Your task to perform on an android device: Open calendar and show me the first week of next month Image 0: 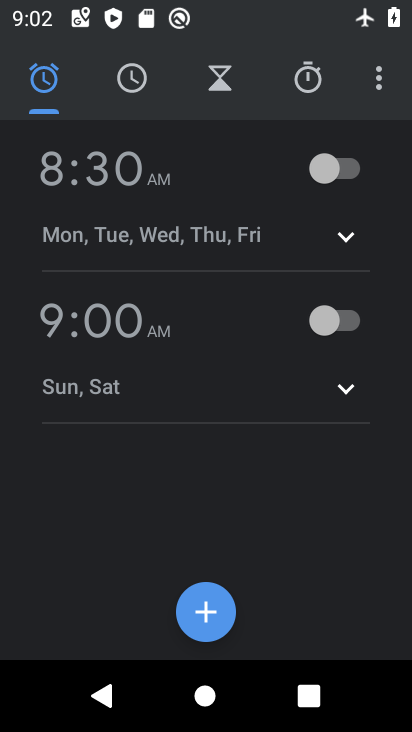
Step 0: press home button
Your task to perform on an android device: Open calendar and show me the first week of next month Image 1: 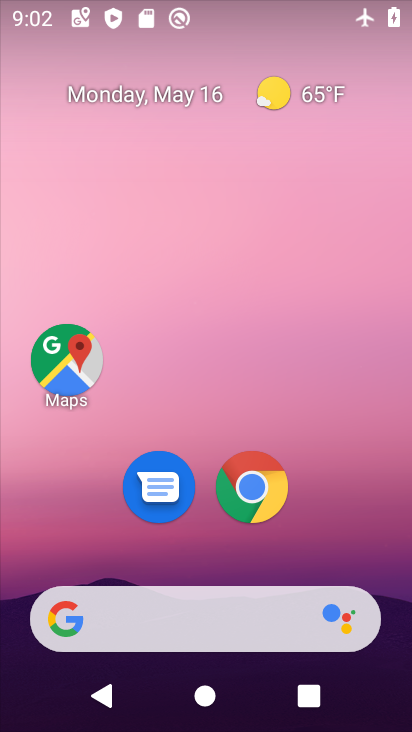
Step 1: drag from (384, 529) to (372, 147)
Your task to perform on an android device: Open calendar and show me the first week of next month Image 2: 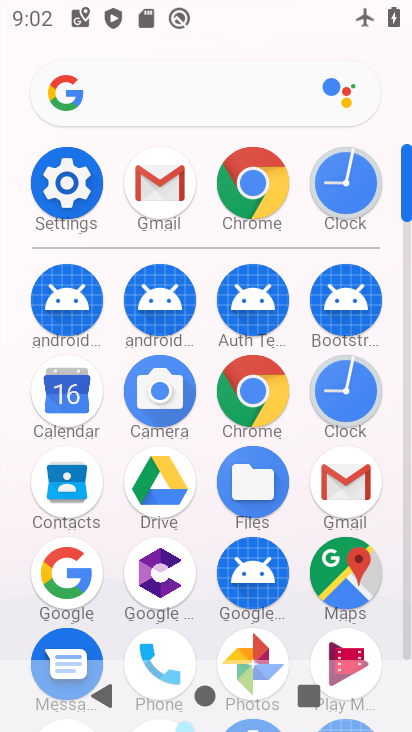
Step 2: click (55, 404)
Your task to perform on an android device: Open calendar and show me the first week of next month Image 3: 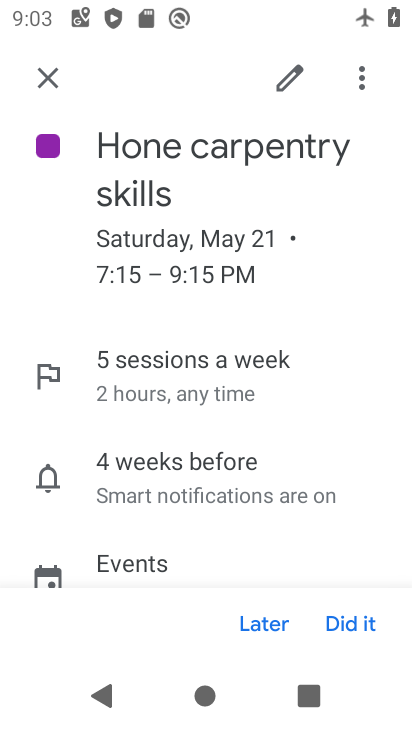
Step 3: click (48, 79)
Your task to perform on an android device: Open calendar and show me the first week of next month Image 4: 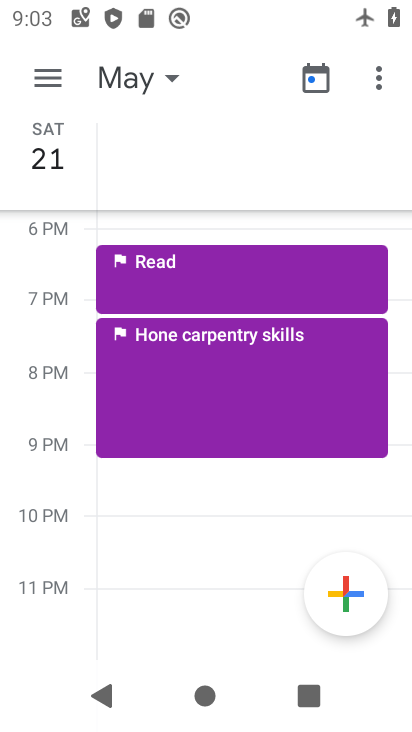
Step 4: click (170, 84)
Your task to perform on an android device: Open calendar and show me the first week of next month Image 5: 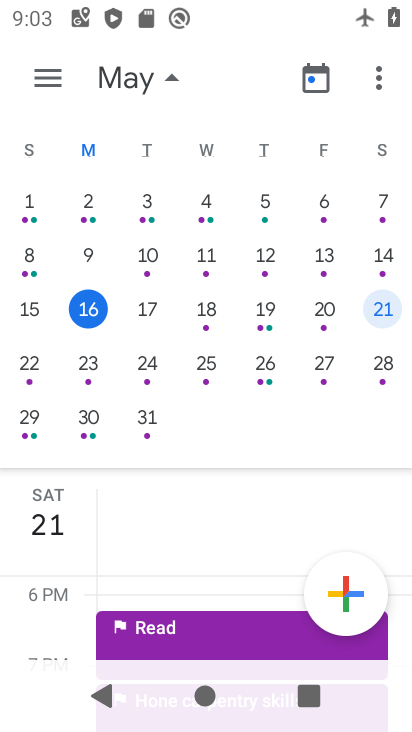
Step 5: drag from (366, 218) to (17, 195)
Your task to perform on an android device: Open calendar and show me the first week of next month Image 6: 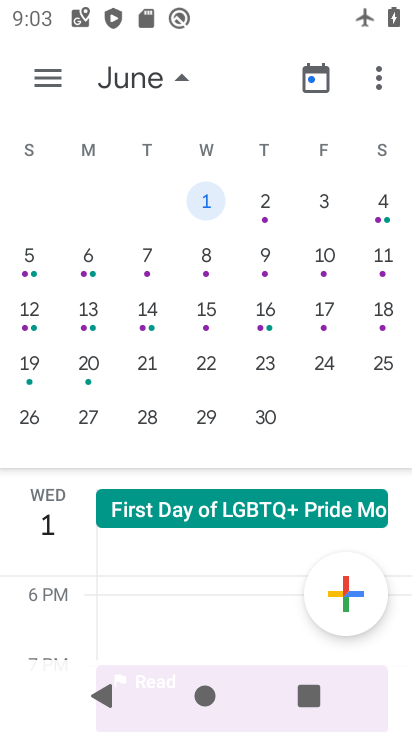
Step 6: click (209, 197)
Your task to perform on an android device: Open calendar and show me the first week of next month Image 7: 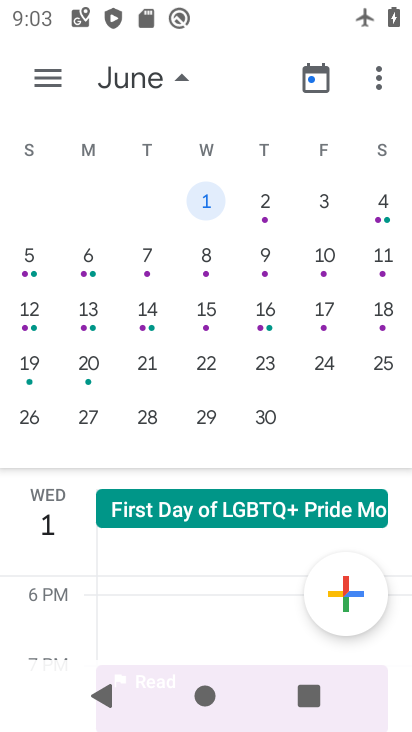
Step 7: task complete